Your task to perform on an android device: Go to Amazon Image 0: 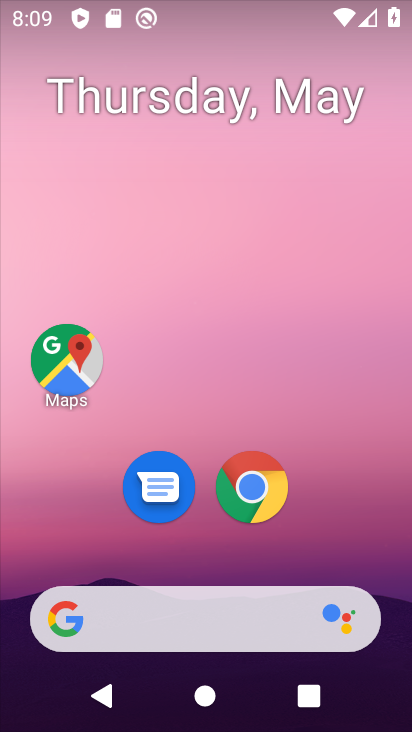
Step 0: click (279, 485)
Your task to perform on an android device: Go to Amazon Image 1: 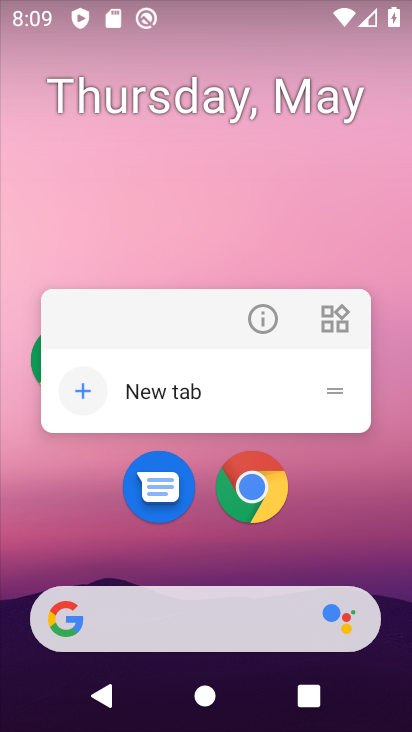
Step 1: click (258, 498)
Your task to perform on an android device: Go to Amazon Image 2: 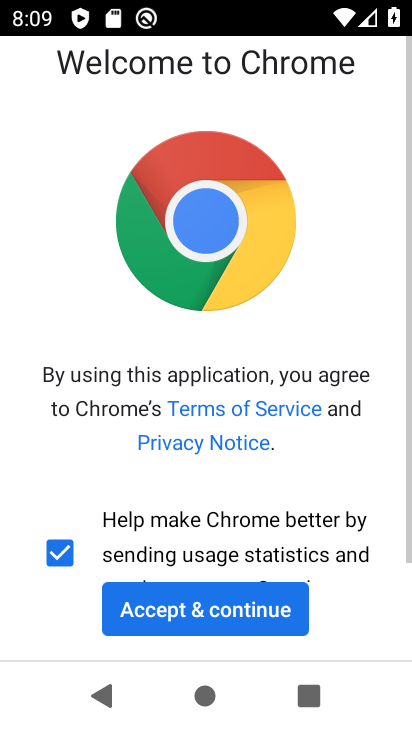
Step 2: click (275, 592)
Your task to perform on an android device: Go to Amazon Image 3: 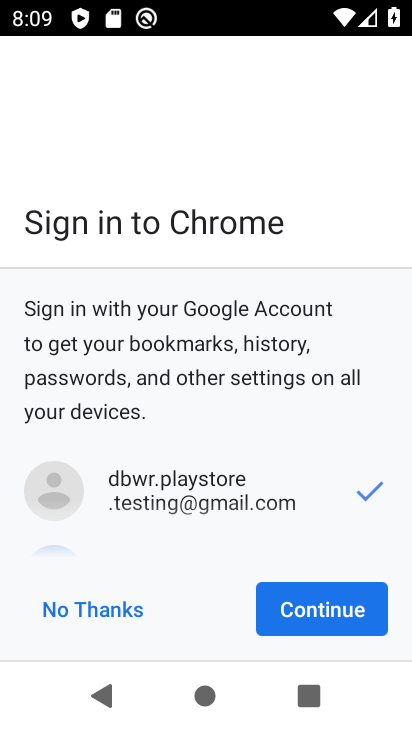
Step 3: click (275, 611)
Your task to perform on an android device: Go to Amazon Image 4: 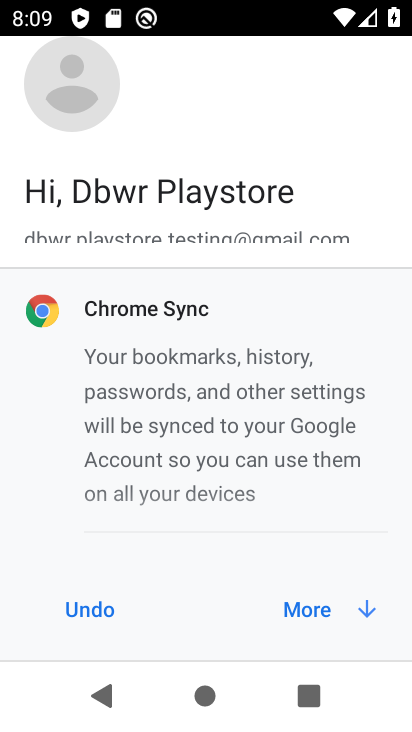
Step 4: click (313, 602)
Your task to perform on an android device: Go to Amazon Image 5: 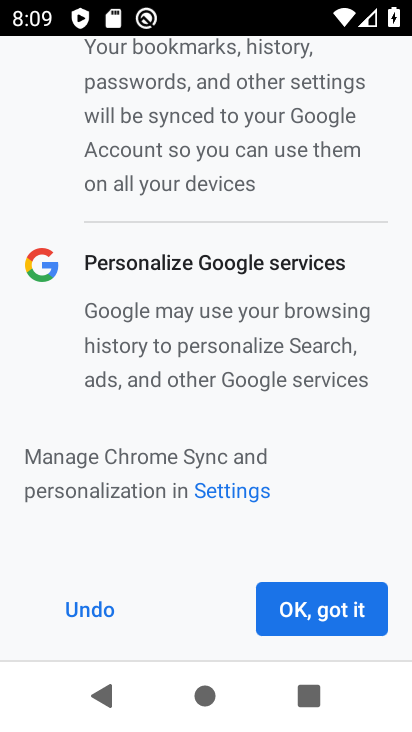
Step 5: click (313, 603)
Your task to perform on an android device: Go to Amazon Image 6: 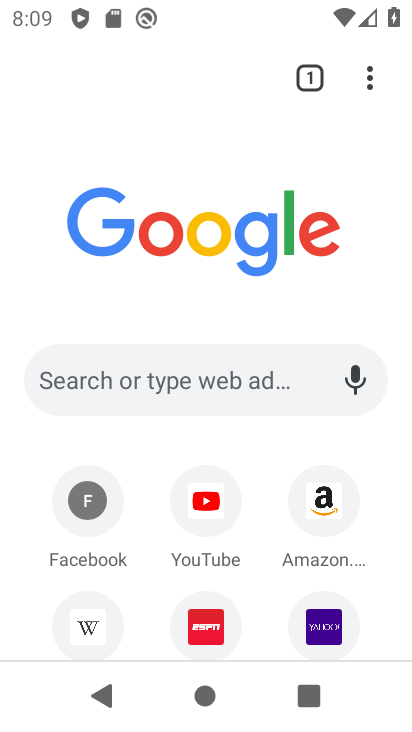
Step 6: click (330, 505)
Your task to perform on an android device: Go to Amazon Image 7: 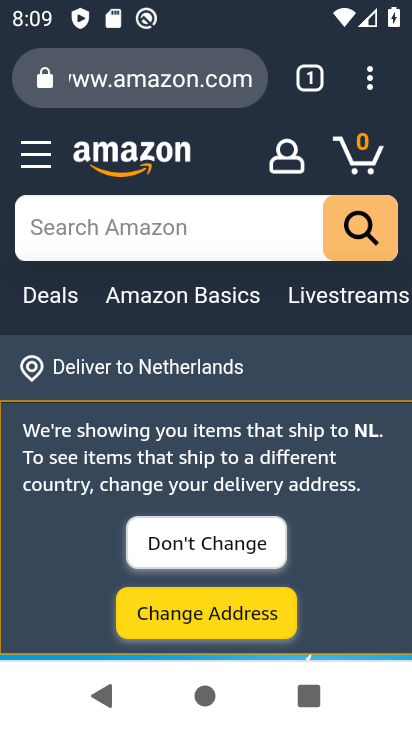
Step 7: task complete